Your task to perform on an android device: Open Youtube and go to the subscriptions tab Image 0: 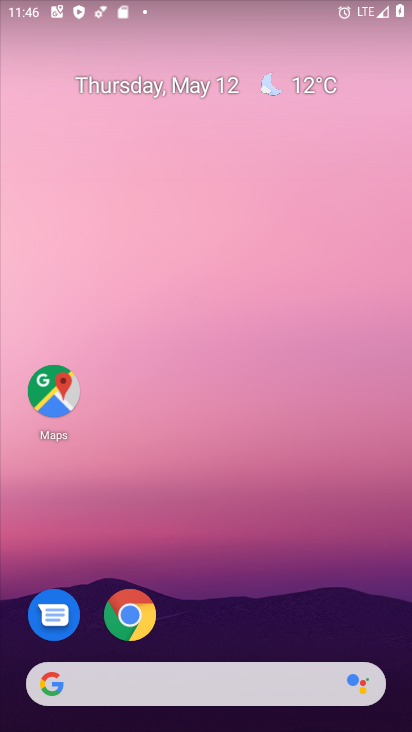
Step 0: drag from (247, 537) to (252, 19)
Your task to perform on an android device: Open Youtube and go to the subscriptions tab Image 1: 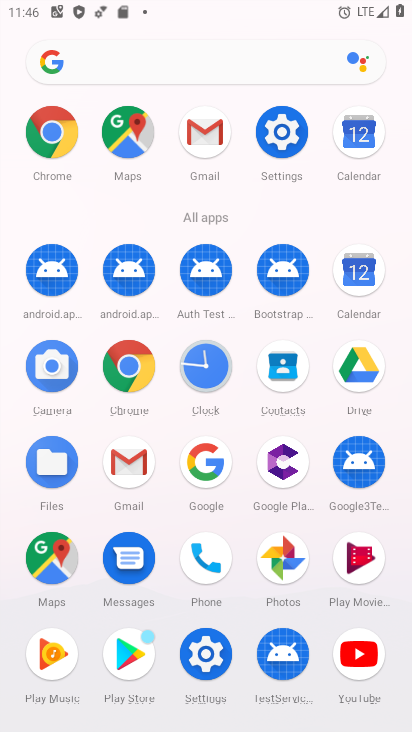
Step 1: click (347, 646)
Your task to perform on an android device: Open Youtube and go to the subscriptions tab Image 2: 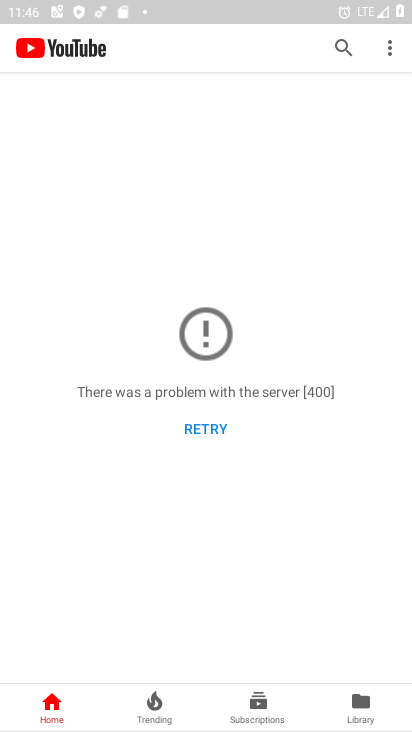
Step 2: click (271, 694)
Your task to perform on an android device: Open Youtube and go to the subscriptions tab Image 3: 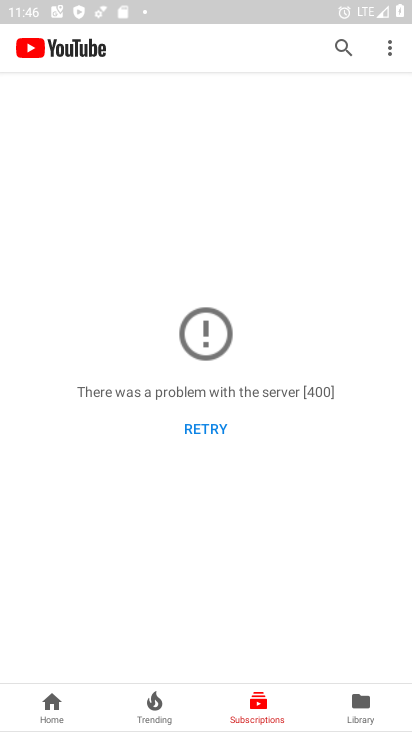
Step 3: click (207, 426)
Your task to perform on an android device: Open Youtube and go to the subscriptions tab Image 4: 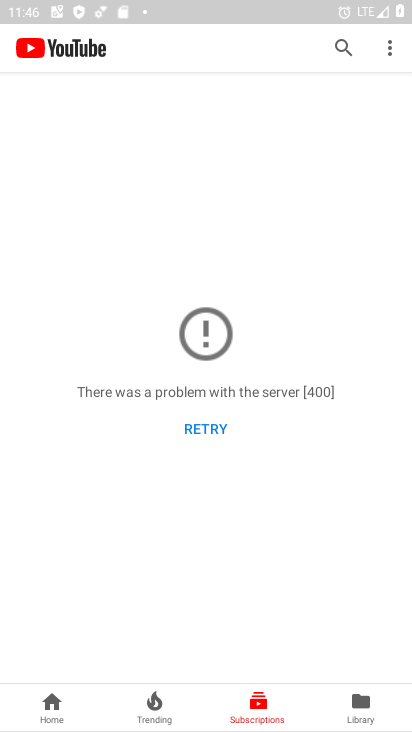
Step 4: click (207, 427)
Your task to perform on an android device: Open Youtube and go to the subscriptions tab Image 5: 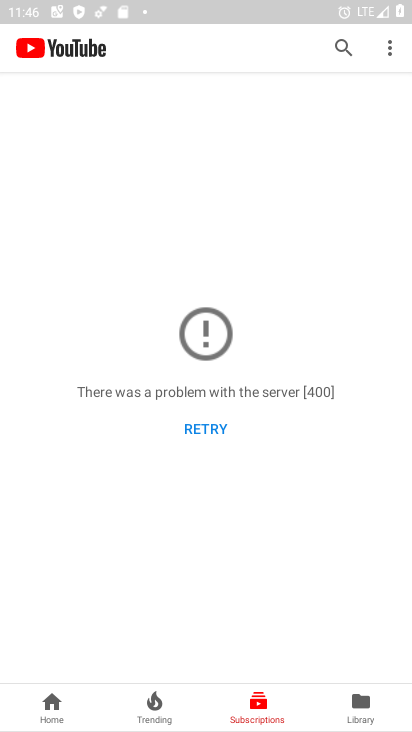
Step 5: click (261, 726)
Your task to perform on an android device: Open Youtube and go to the subscriptions tab Image 6: 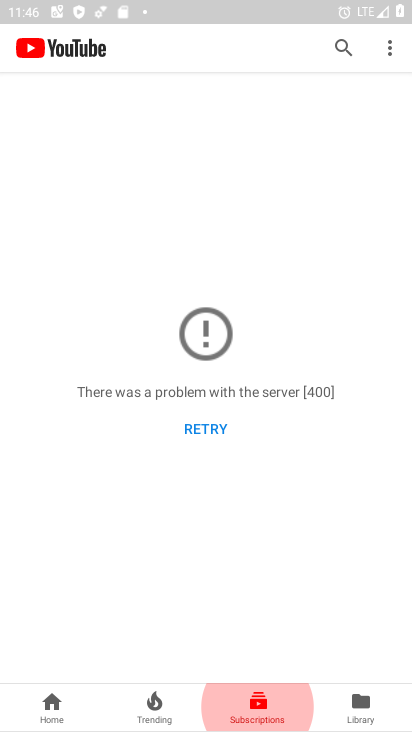
Step 6: click (271, 692)
Your task to perform on an android device: Open Youtube and go to the subscriptions tab Image 7: 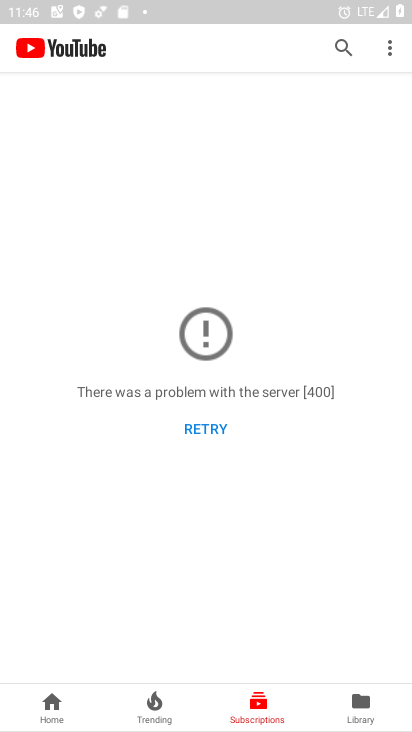
Step 7: task complete